Your task to perform on an android device: Open privacy settings Image 0: 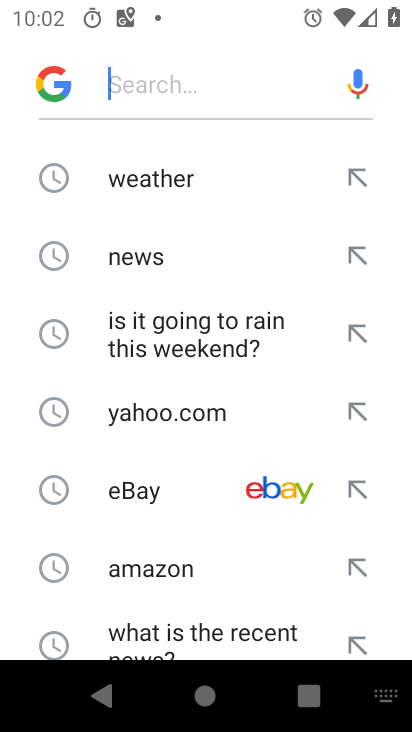
Step 0: press home button
Your task to perform on an android device: Open privacy settings Image 1: 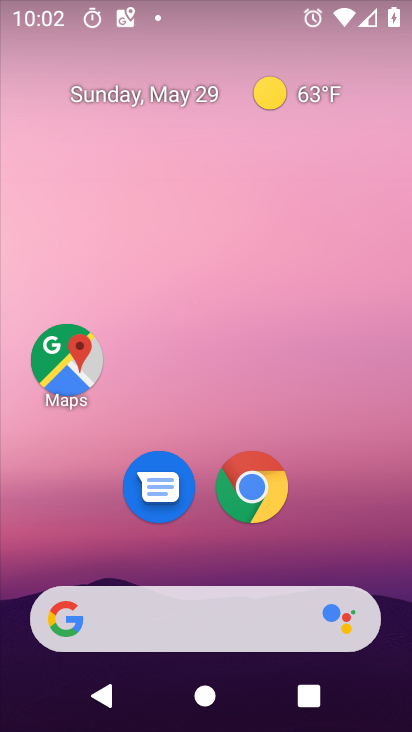
Step 1: drag from (265, 588) to (286, 110)
Your task to perform on an android device: Open privacy settings Image 2: 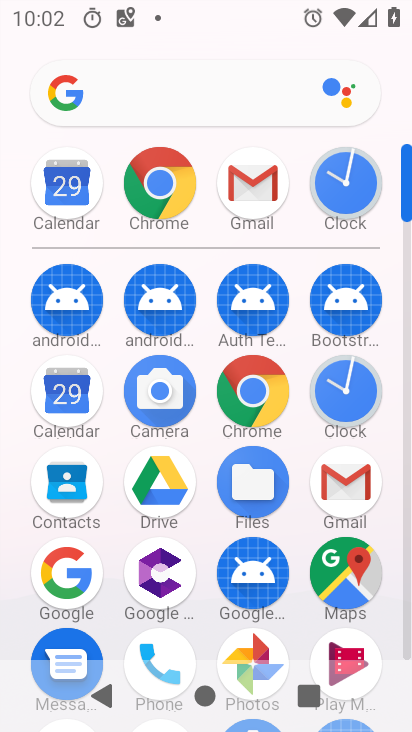
Step 2: drag from (160, 407) to (187, 171)
Your task to perform on an android device: Open privacy settings Image 3: 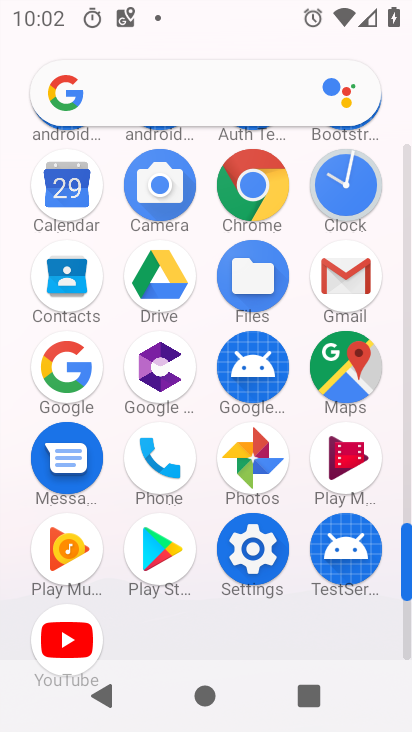
Step 3: click (248, 567)
Your task to perform on an android device: Open privacy settings Image 4: 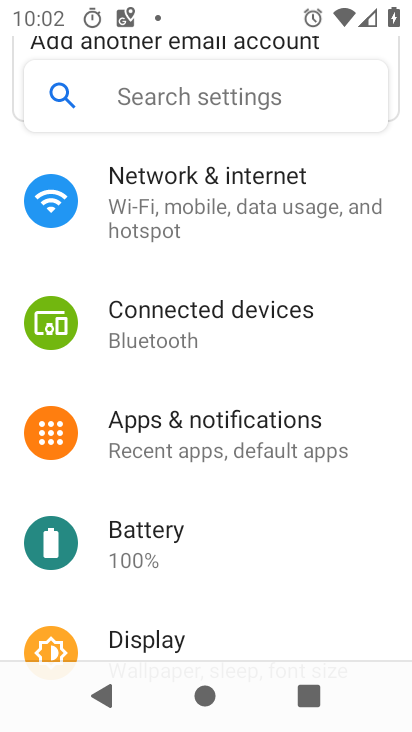
Step 4: drag from (162, 485) to (365, 144)
Your task to perform on an android device: Open privacy settings Image 5: 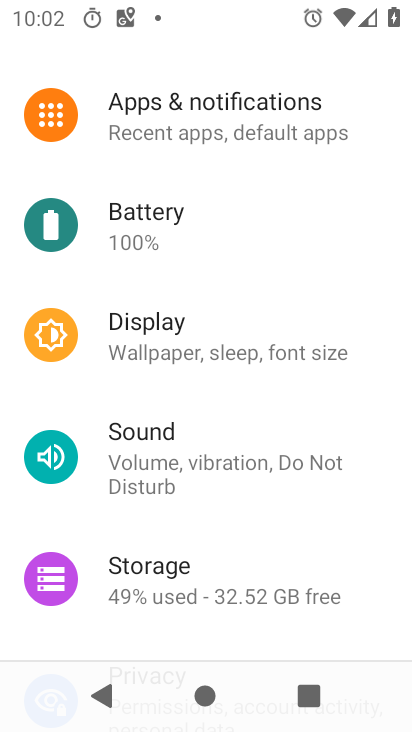
Step 5: drag from (167, 479) to (200, 181)
Your task to perform on an android device: Open privacy settings Image 6: 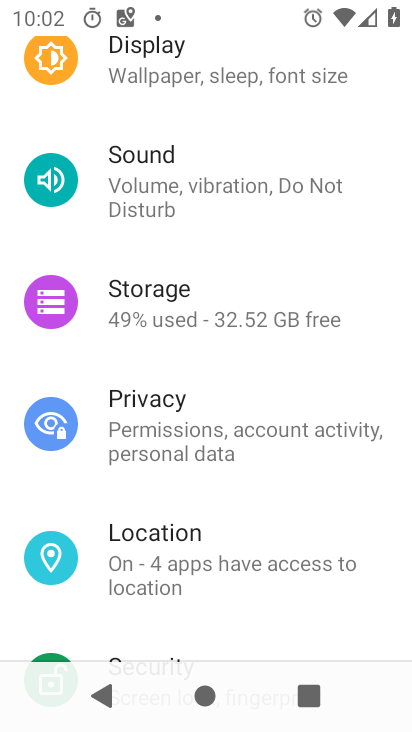
Step 6: click (177, 430)
Your task to perform on an android device: Open privacy settings Image 7: 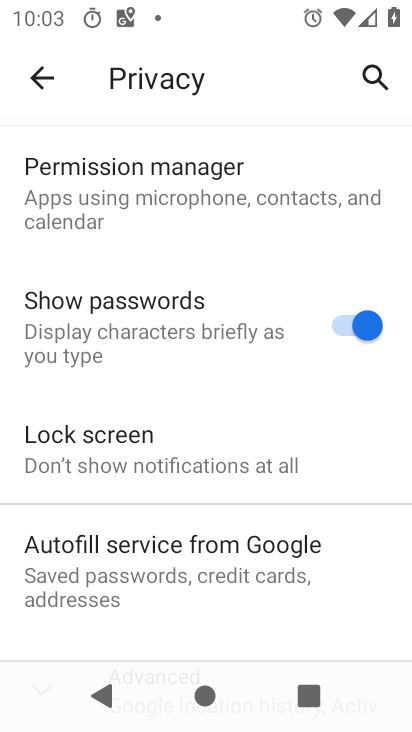
Step 7: task complete